Your task to perform on an android device: Open Chrome and go to settings Image 0: 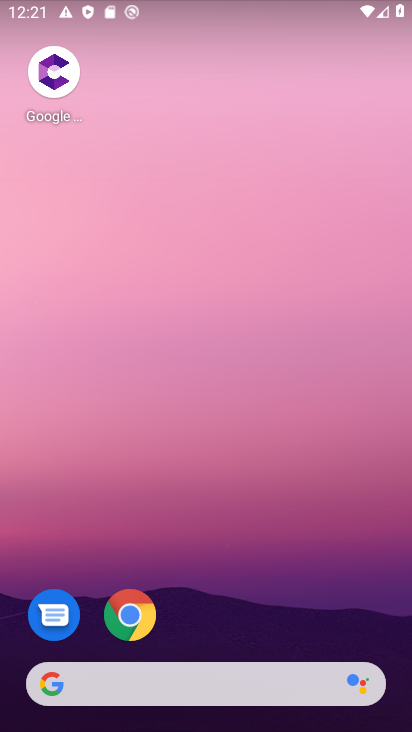
Step 0: drag from (244, 699) to (269, 377)
Your task to perform on an android device: Open Chrome and go to settings Image 1: 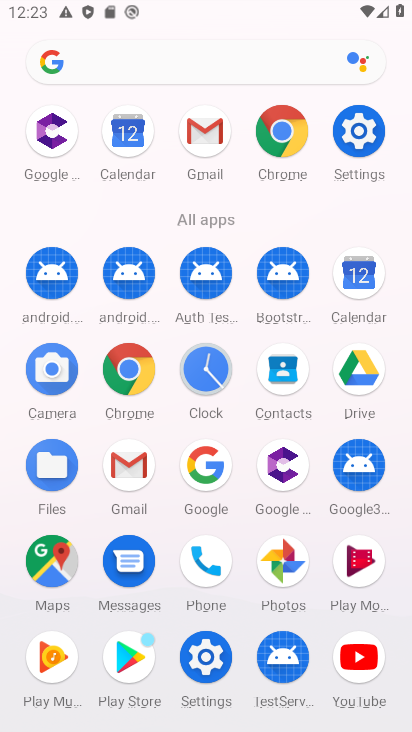
Step 1: click (209, 654)
Your task to perform on an android device: Open Chrome and go to settings Image 2: 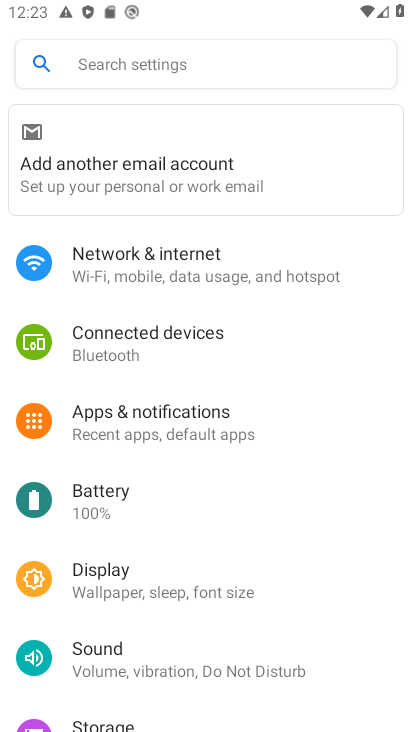
Step 2: press home button
Your task to perform on an android device: Open Chrome and go to settings Image 3: 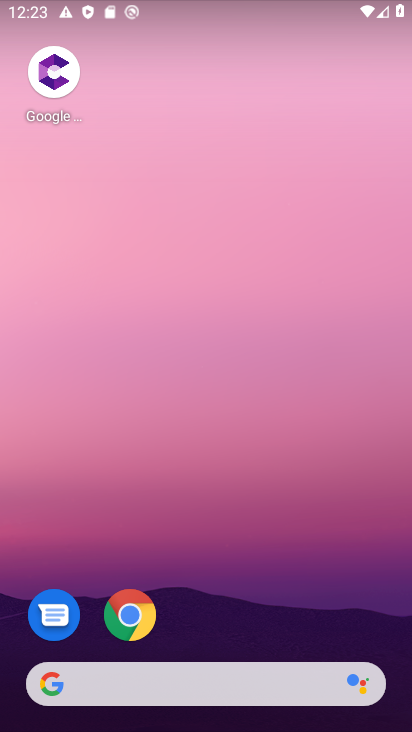
Step 3: drag from (235, 711) to (210, 261)
Your task to perform on an android device: Open Chrome and go to settings Image 4: 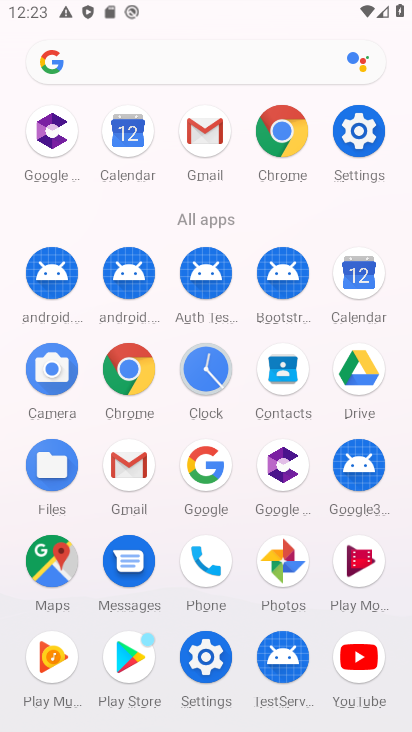
Step 4: click (127, 363)
Your task to perform on an android device: Open Chrome and go to settings Image 5: 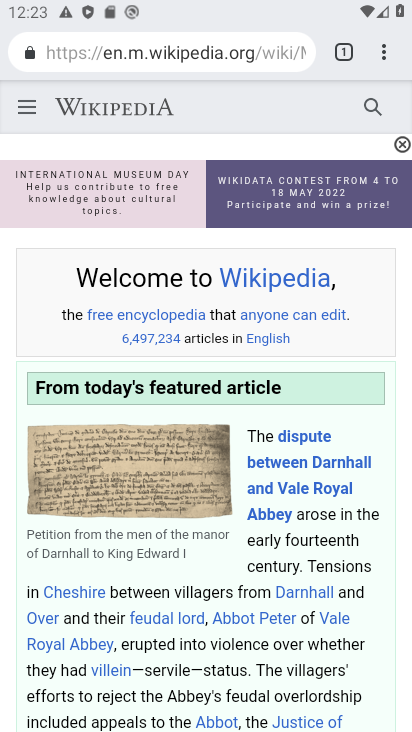
Step 5: click (382, 62)
Your task to perform on an android device: Open Chrome and go to settings Image 6: 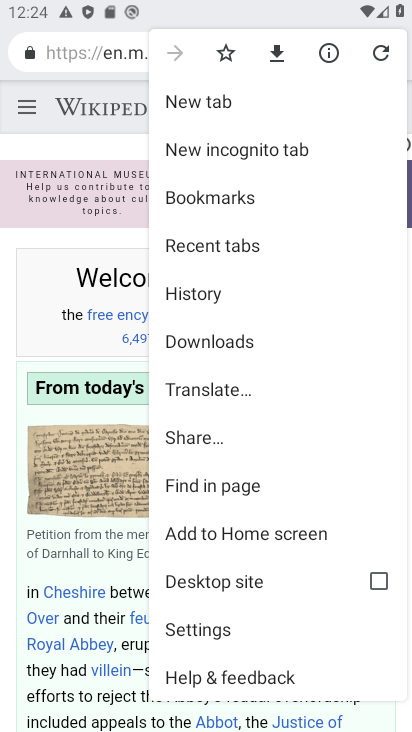
Step 6: click (211, 620)
Your task to perform on an android device: Open Chrome and go to settings Image 7: 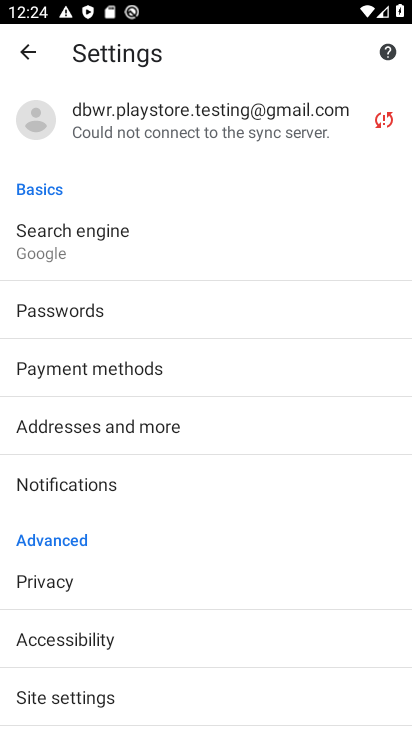
Step 7: task complete